Your task to perform on an android device: What's the weather today? Image 0: 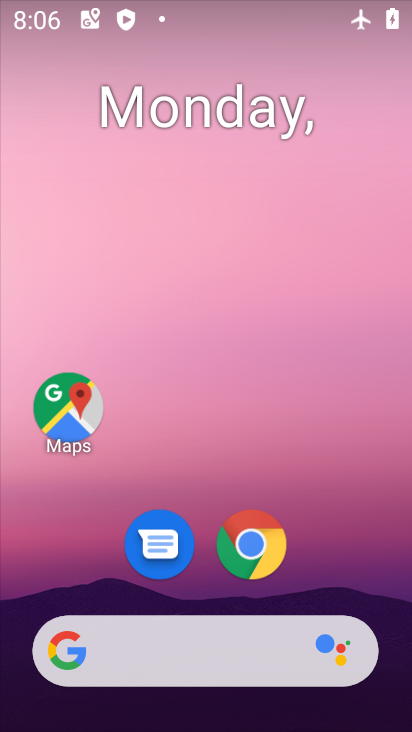
Step 0: click (210, 663)
Your task to perform on an android device: What's the weather today? Image 1: 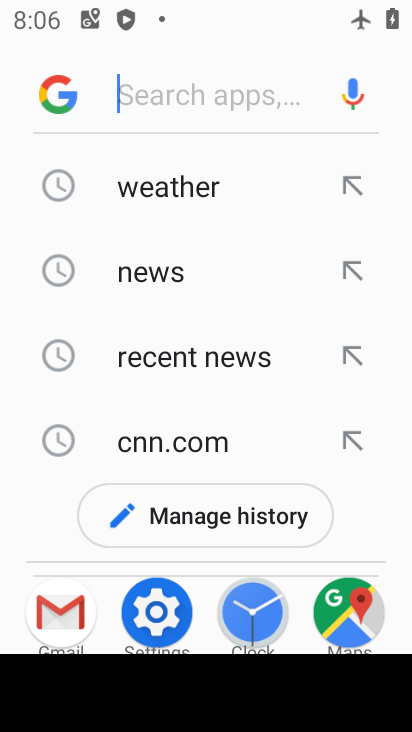
Step 1: click (169, 187)
Your task to perform on an android device: What's the weather today? Image 2: 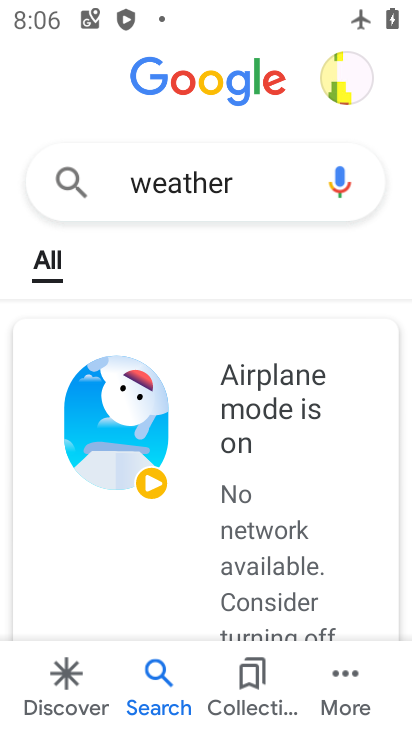
Step 2: task complete